Your task to perform on an android device: open a new tab in the chrome app Image 0: 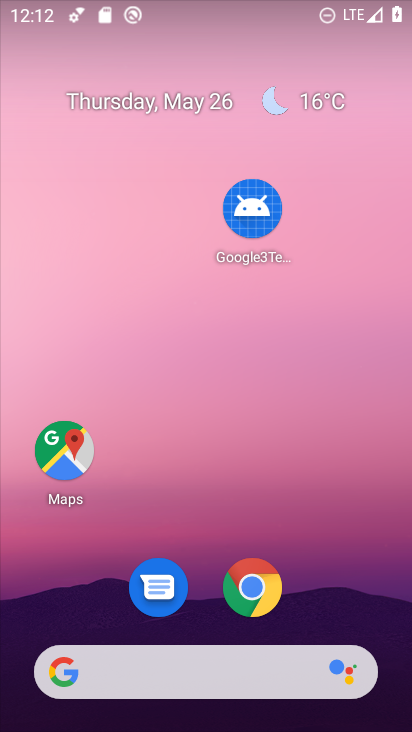
Step 0: click (256, 593)
Your task to perform on an android device: open a new tab in the chrome app Image 1: 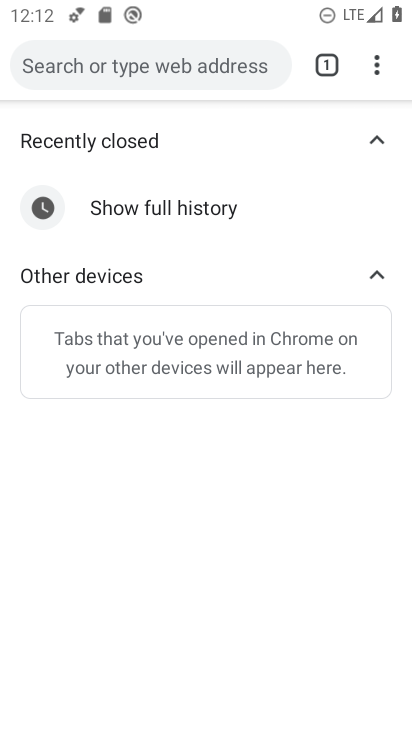
Step 1: click (390, 64)
Your task to perform on an android device: open a new tab in the chrome app Image 2: 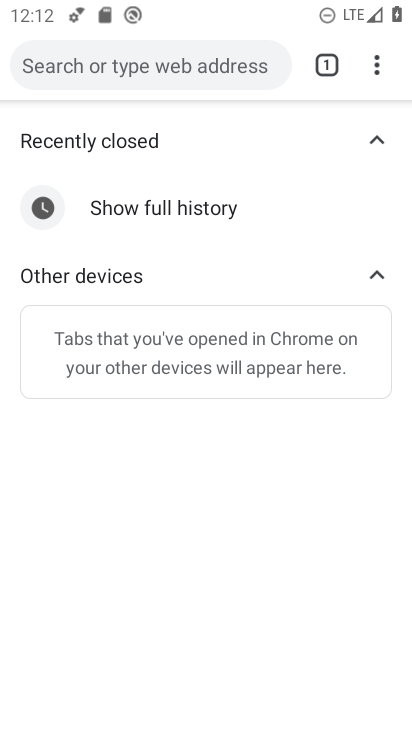
Step 2: task complete